Your task to perform on an android device: Show me productivity apps on the Play Store Image 0: 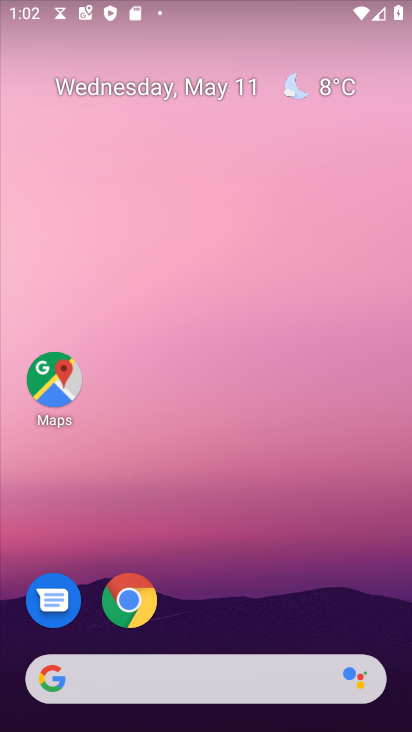
Step 0: drag from (284, 530) to (187, 61)
Your task to perform on an android device: Show me productivity apps on the Play Store Image 1: 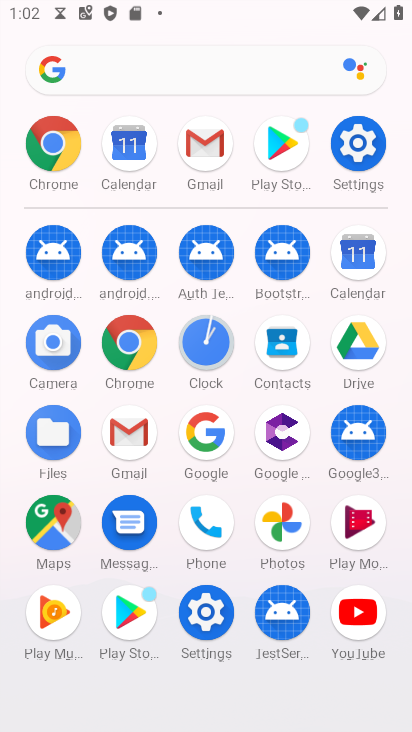
Step 1: click (135, 621)
Your task to perform on an android device: Show me productivity apps on the Play Store Image 2: 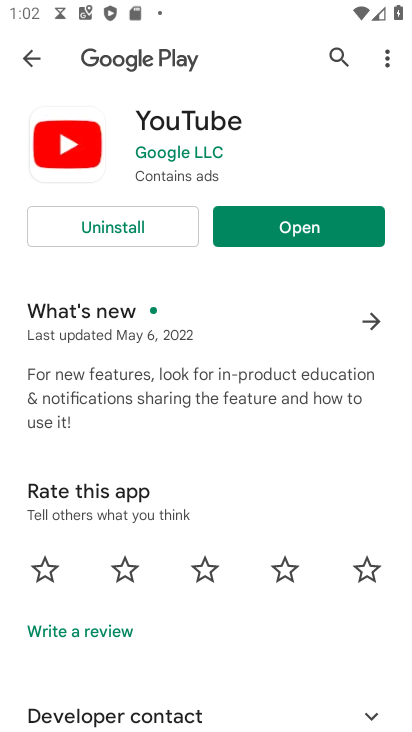
Step 2: click (37, 61)
Your task to perform on an android device: Show me productivity apps on the Play Store Image 3: 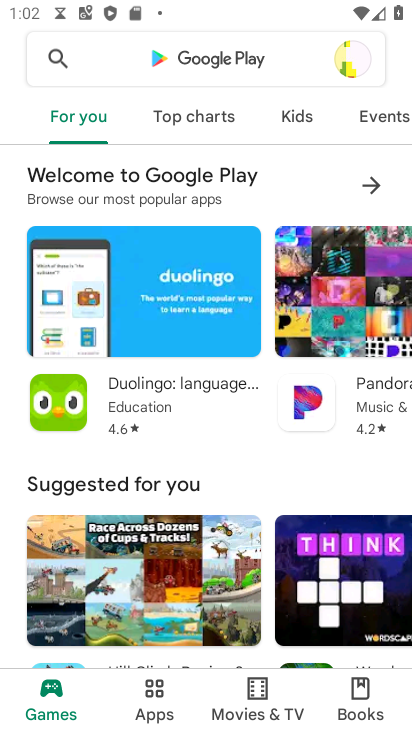
Step 3: click (198, 56)
Your task to perform on an android device: Show me productivity apps on the Play Store Image 4: 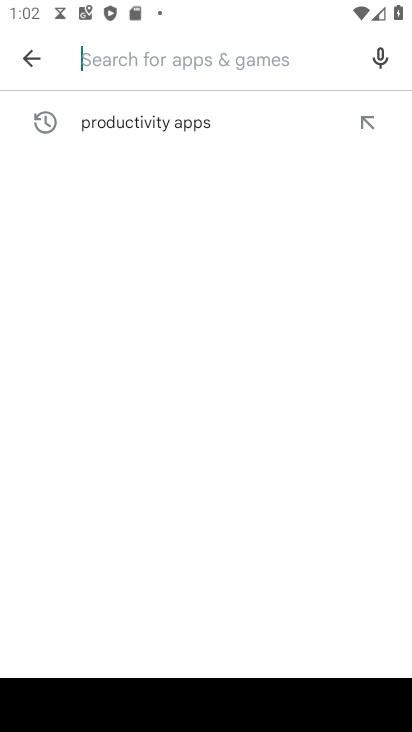
Step 4: click (169, 131)
Your task to perform on an android device: Show me productivity apps on the Play Store Image 5: 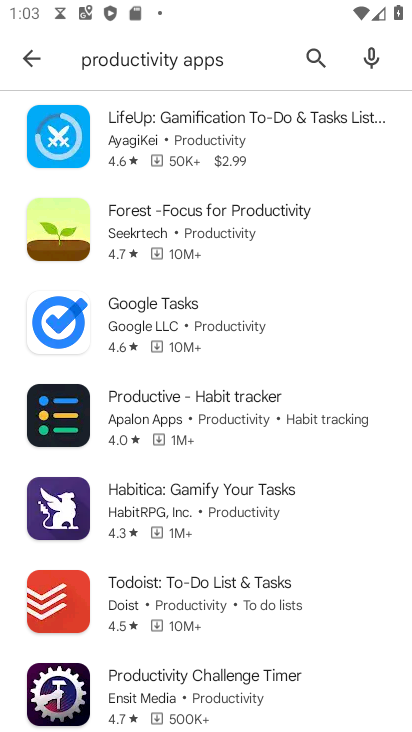
Step 5: task complete